Your task to perform on an android device: change the upload size in google photos Image 0: 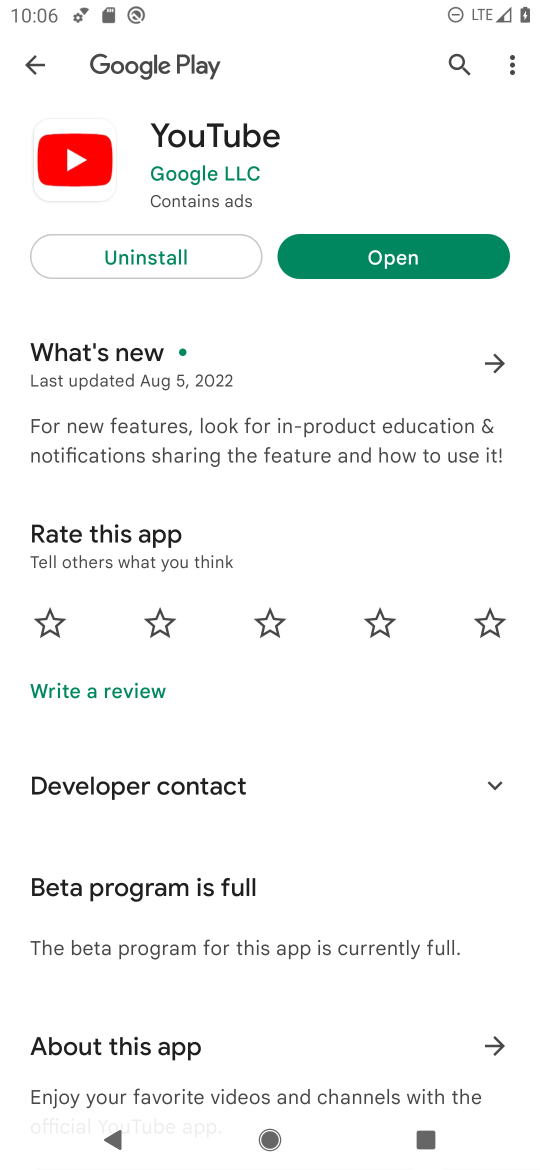
Step 0: press home button
Your task to perform on an android device: change the upload size in google photos Image 1: 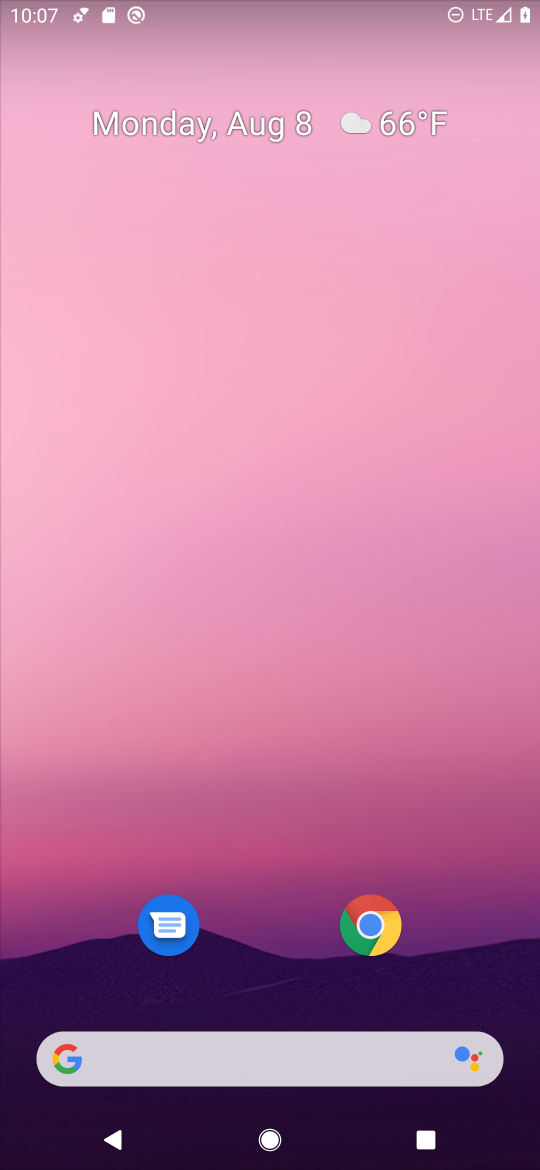
Step 1: drag from (241, 946) to (266, 137)
Your task to perform on an android device: change the upload size in google photos Image 2: 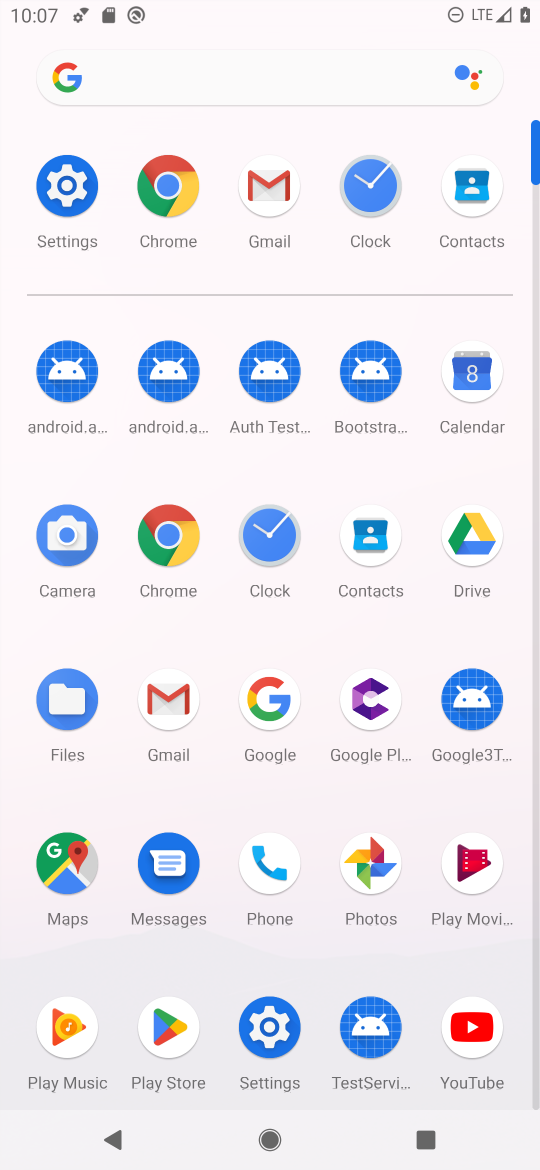
Step 2: click (362, 857)
Your task to perform on an android device: change the upload size in google photos Image 3: 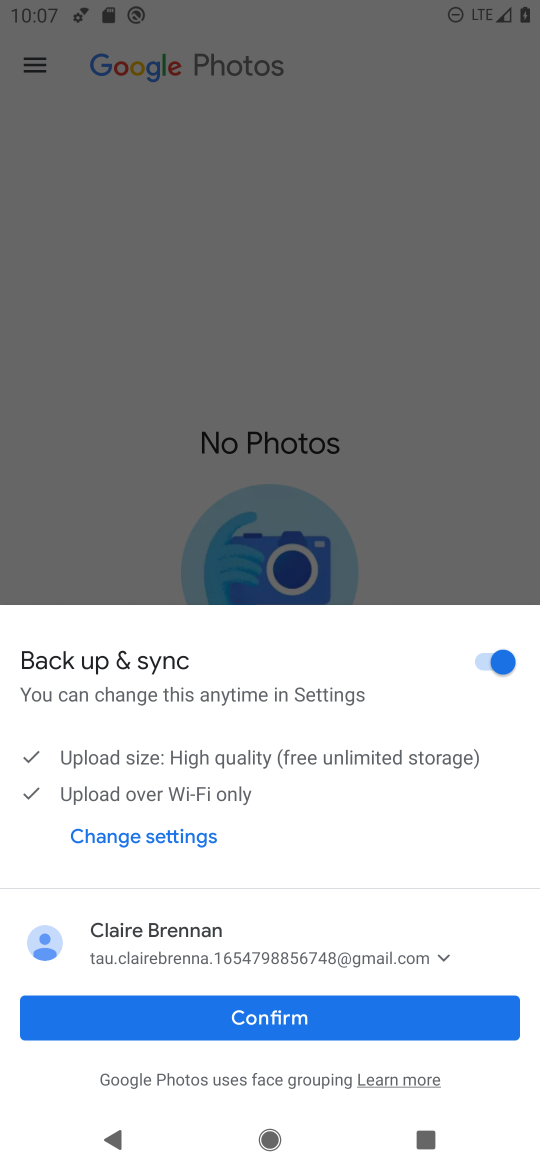
Step 3: click (243, 1015)
Your task to perform on an android device: change the upload size in google photos Image 4: 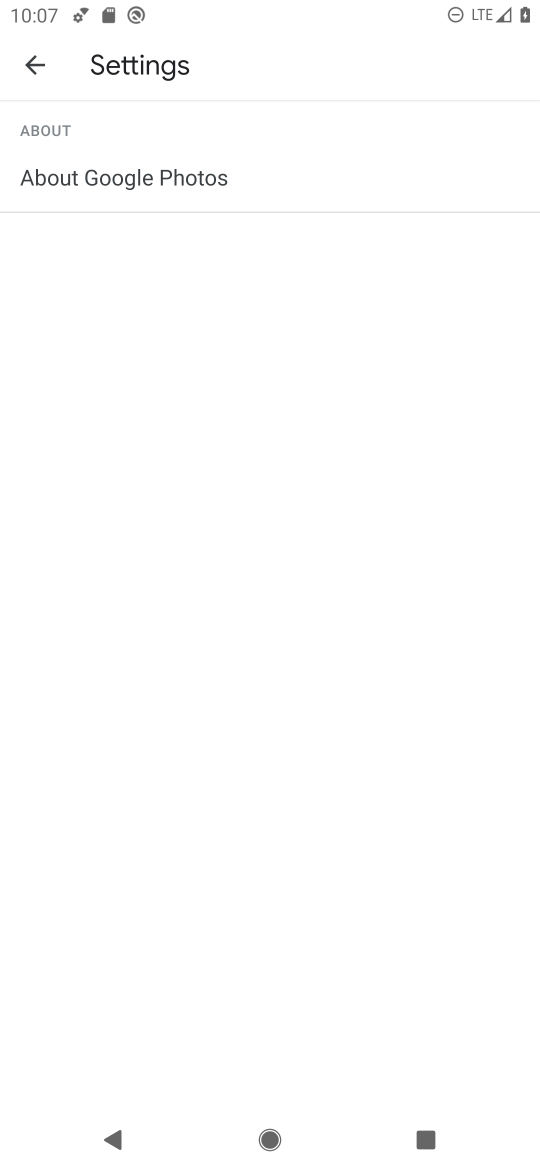
Step 4: click (41, 71)
Your task to perform on an android device: change the upload size in google photos Image 5: 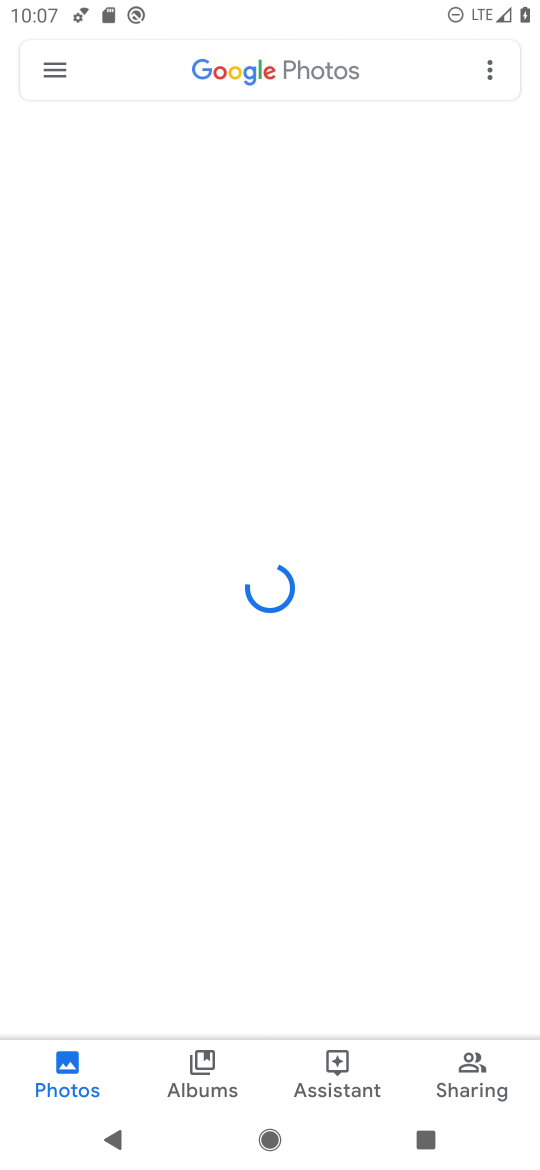
Step 5: click (56, 67)
Your task to perform on an android device: change the upload size in google photos Image 6: 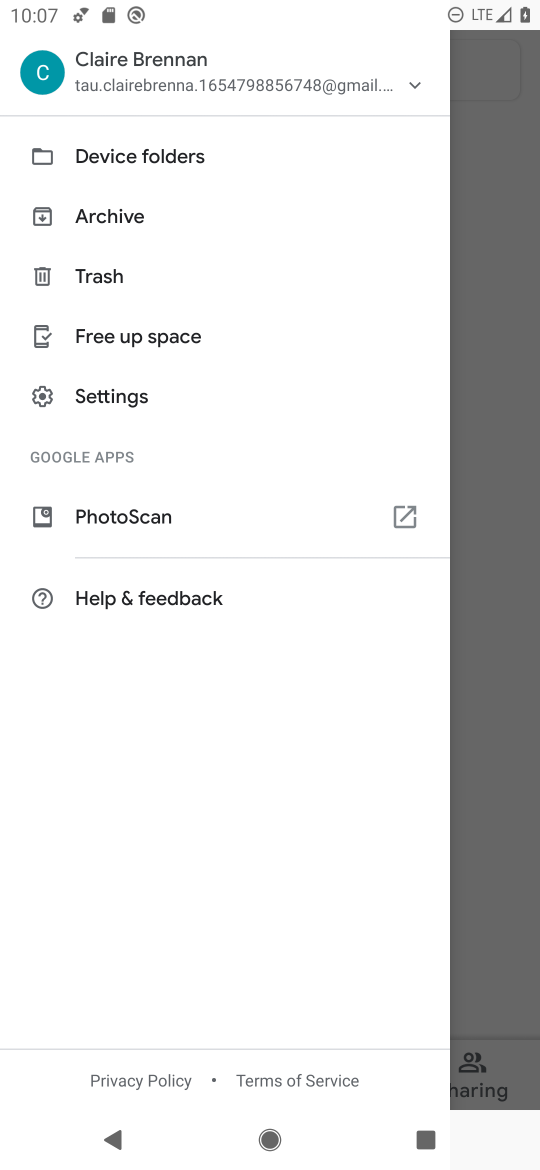
Step 6: click (129, 408)
Your task to perform on an android device: change the upload size in google photos Image 7: 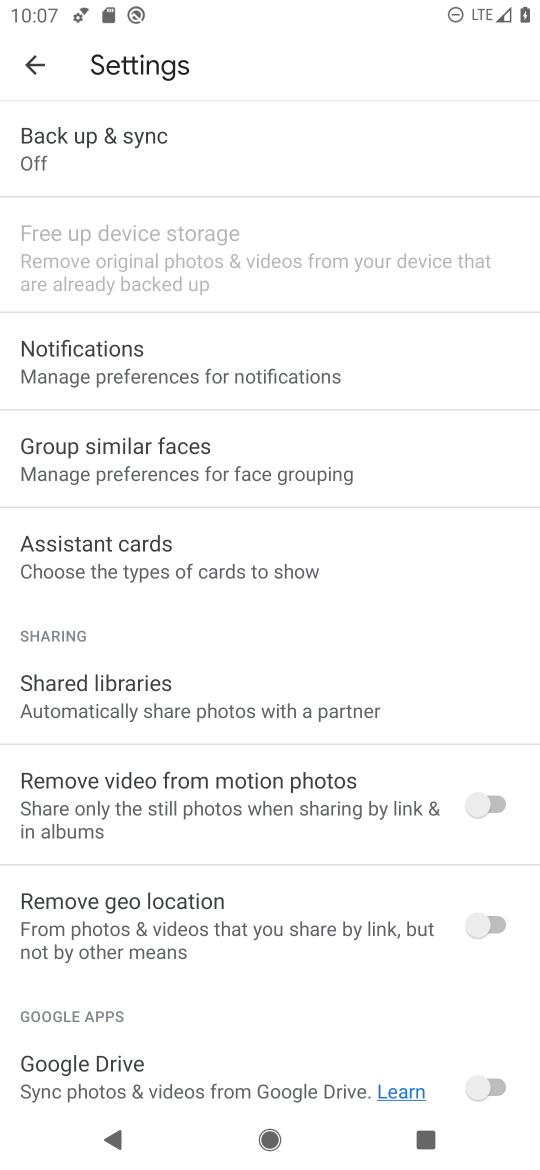
Step 7: click (142, 163)
Your task to perform on an android device: change the upload size in google photos Image 8: 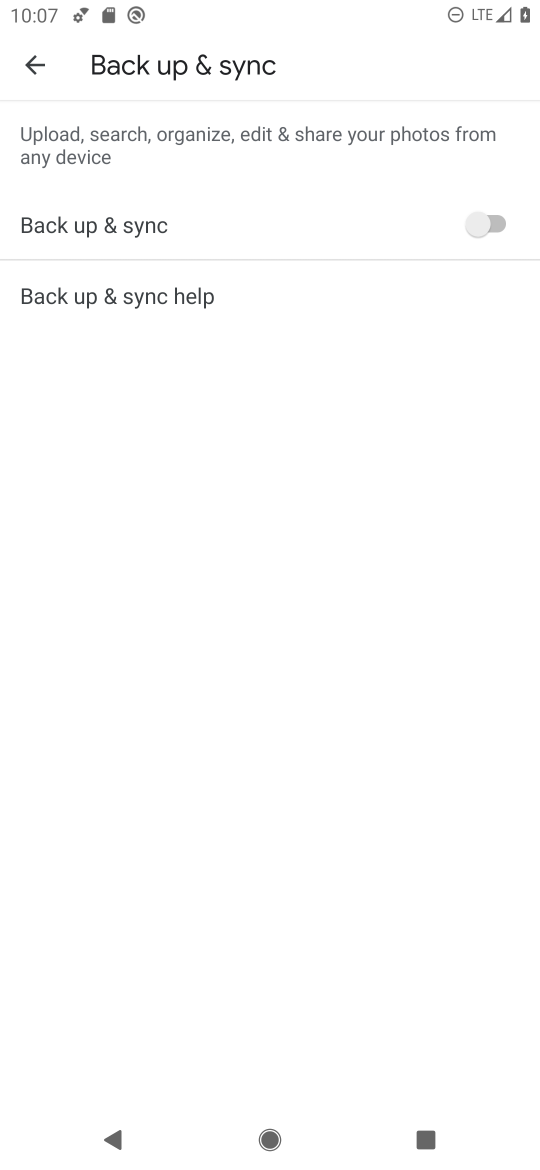
Step 8: click (482, 226)
Your task to perform on an android device: change the upload size in google photos Image 9: 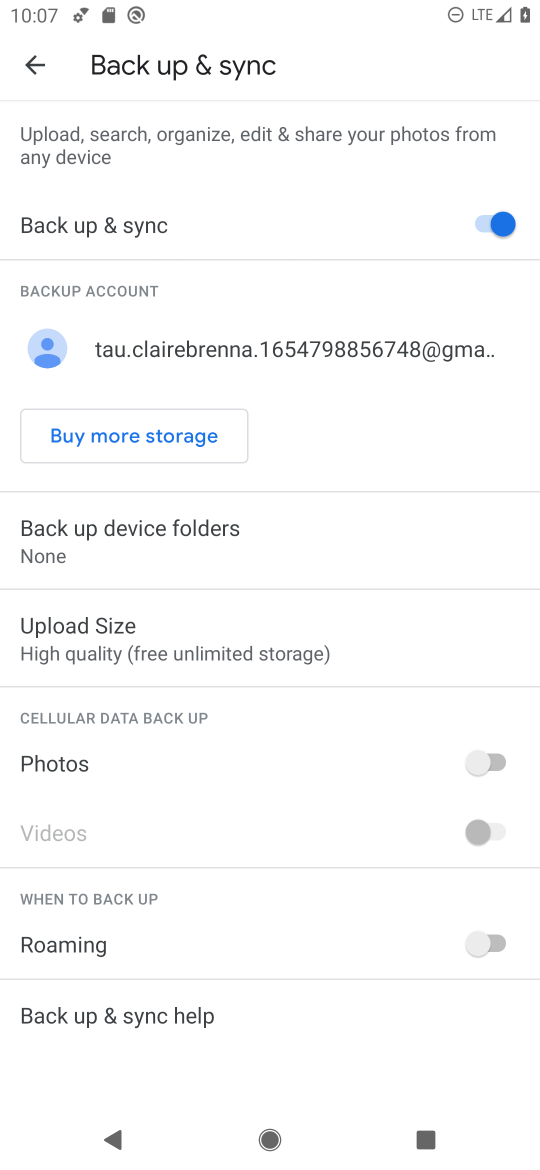
Step 9: click (107, 639)
Your task to perform on an android device: change the upload size in google photos Image 10: 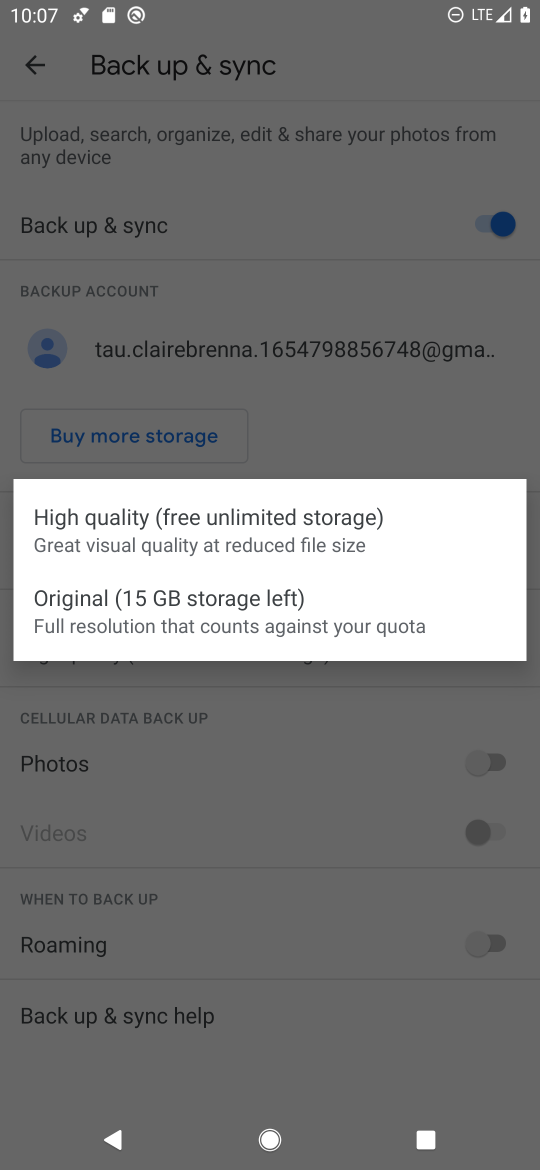
Step 10: click (178, 743)
Your task to perform on an android device: change the upload size in google photos Image 11: 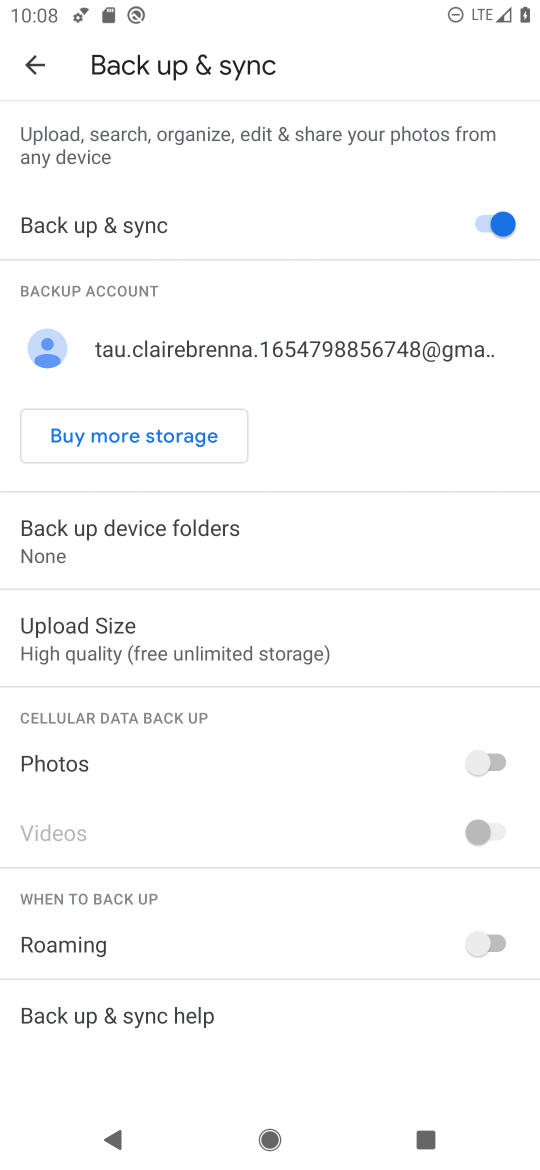
Step 11: click (142, 647)
Your task to perform on an android device: change the upload size in google photos Image 12: 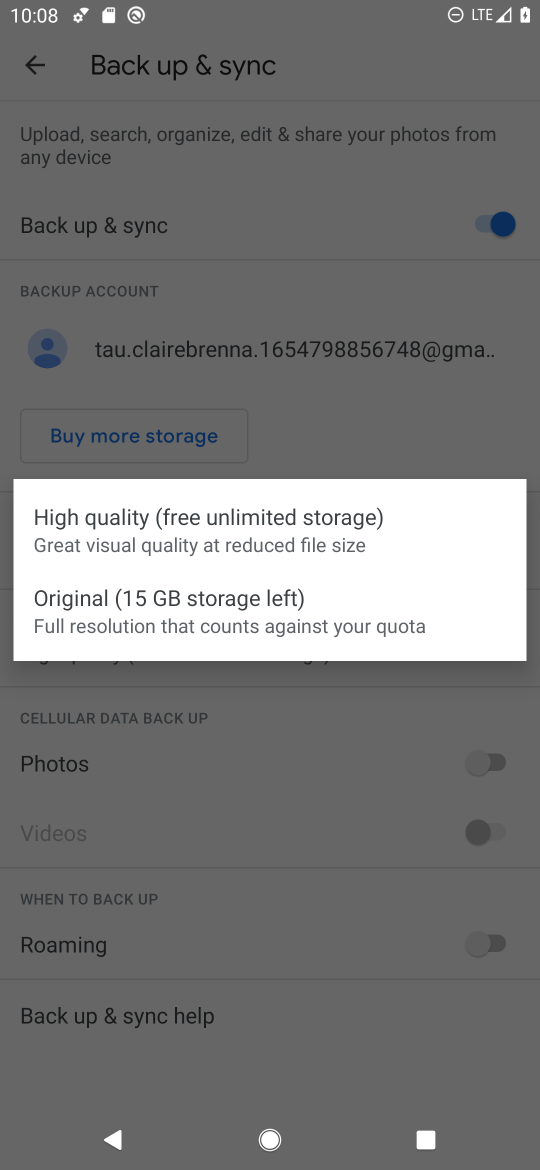
Step 12: click (142, 616)
Your task to perform on an android device: change the upload size in google photos Image 13: 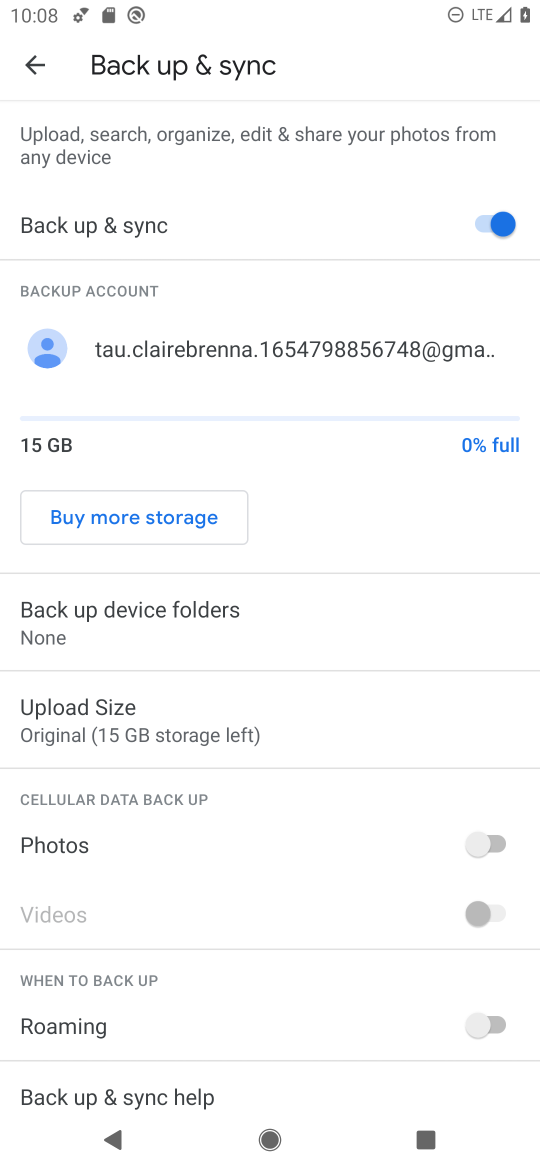
Step 13: task complete